Your task to perform on an android device: Open eBay Image 0: 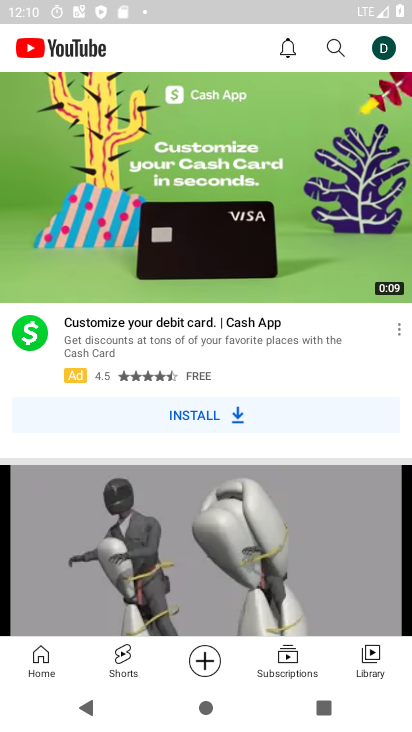
Step 0: press home button
Your task to perform on an android device: Open eBay Image 1: 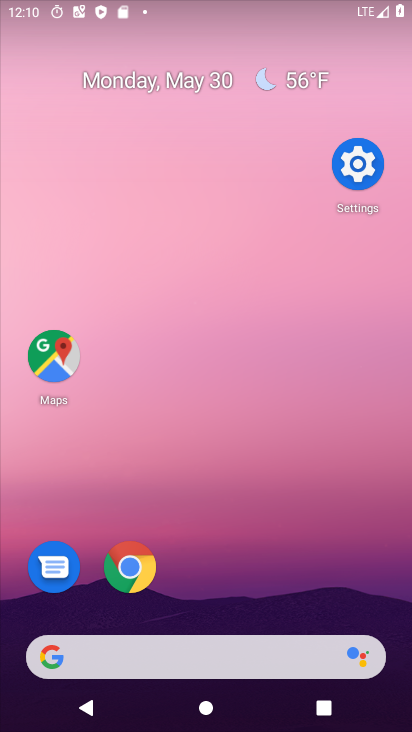
Step 1: drag from (320, 551) to (301, 167)
Your task to perform on an android device: Open eBay Image 2: 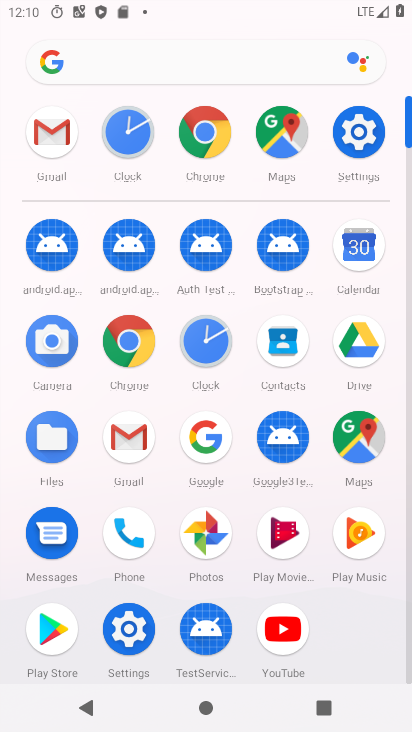
Step 2: click (208, 150)
Your task to perform on an android device: Open eBay Image 3: 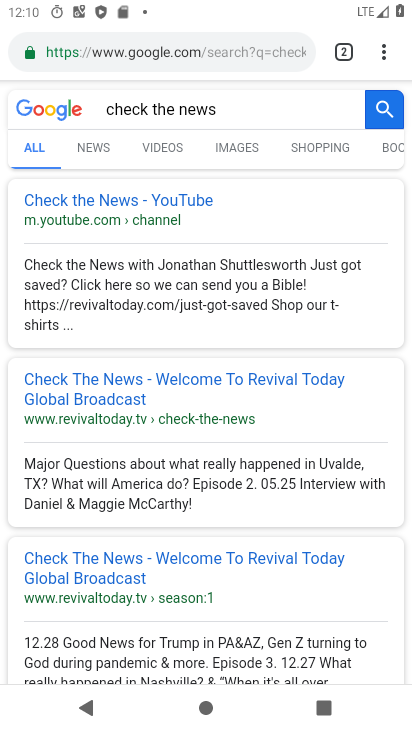
Step 3: click (216, 43)
Your task to perform on an android device: Open eBay Image 4: 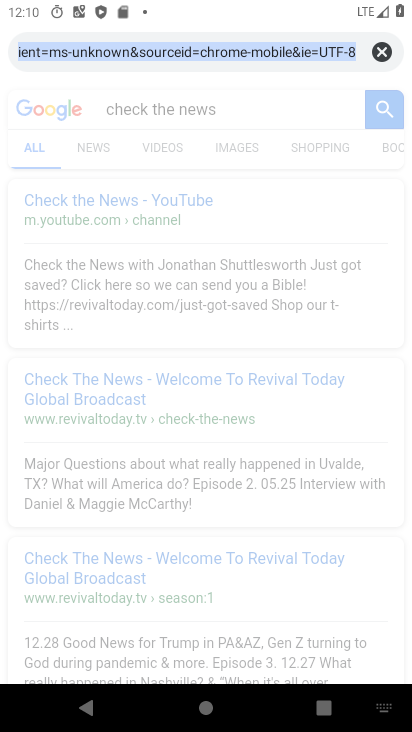
Step 4: click (379, 50)
Your task to perform on an android device: Open eBay Image 5: 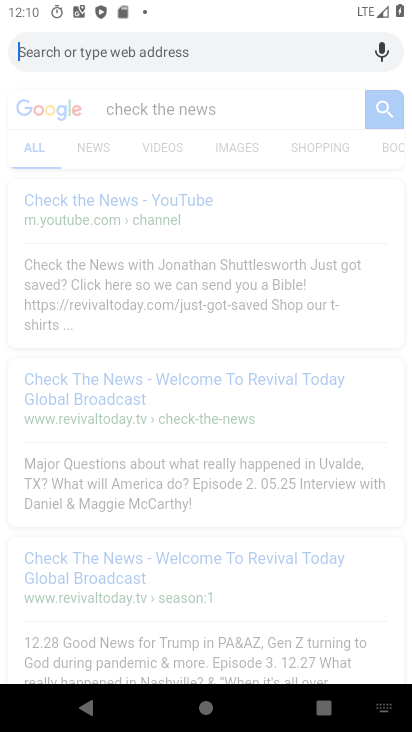
Step 5: type "ebay"
Your task to perform on an android device: Open eBay Image 6: 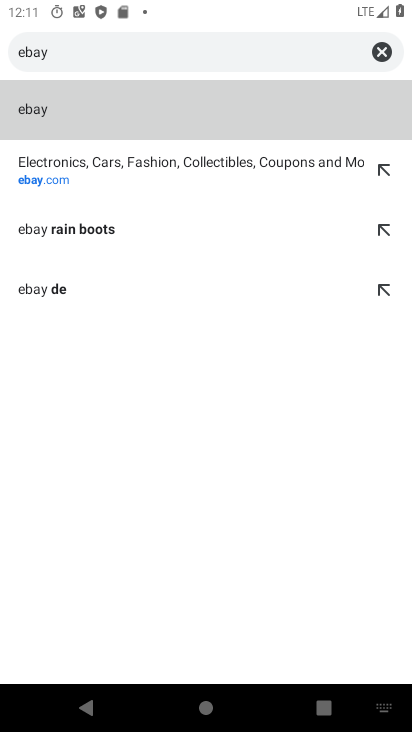
Step 6: click (252, 169)
Your task to perform on an android device: Open eBay Image 7: 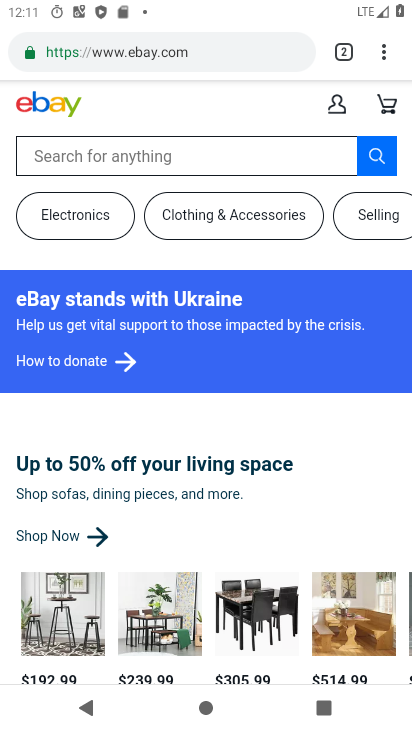
Step 7: task complete